Your task to perform on an android device: Search for pizza restaurants on Maps Image 0: 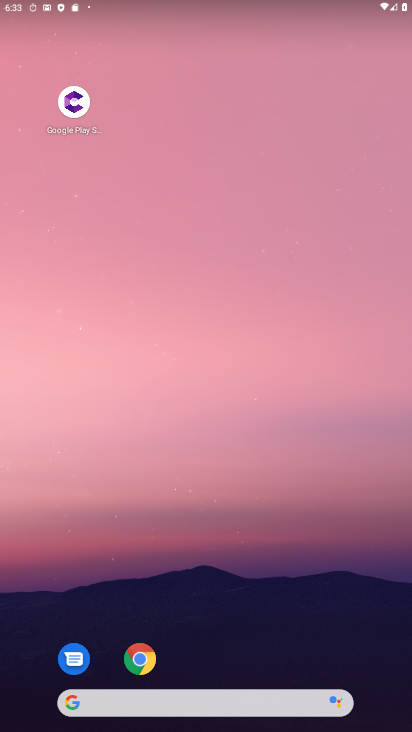
Step 0: drag from (368, 651) to (237, 28)
Your task to perform on an android device: Search for pizza restaurants on Maps Image 1: 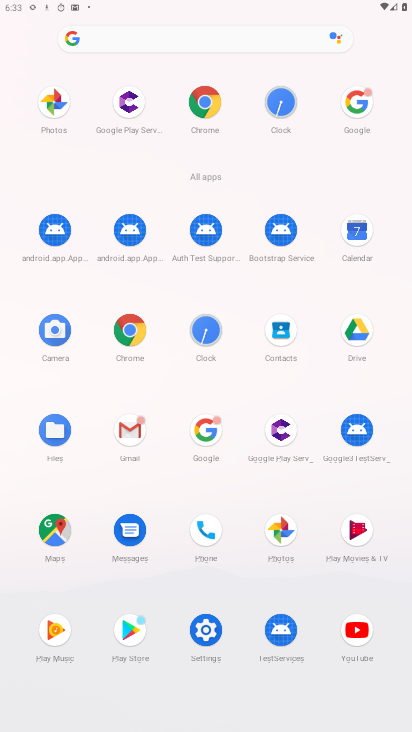
Step 1: click (44, 520)
Your task to perform on an android device: Search for pizza restaurants on Maps Image 2: 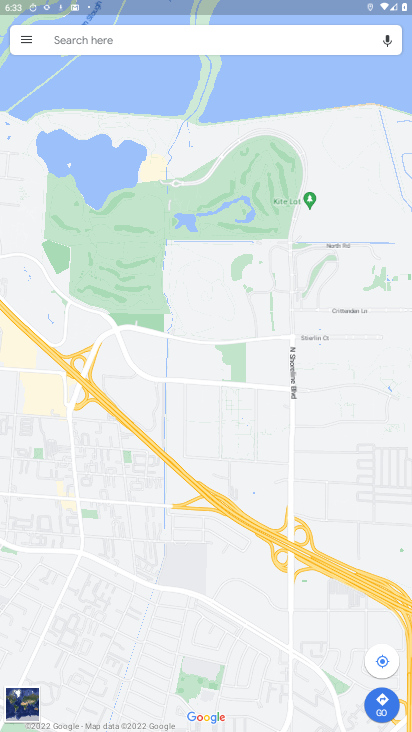
Step 2: click (109, 47)
Your task to perform on an android device: Search for pizza restaurants on Maps Image 3: 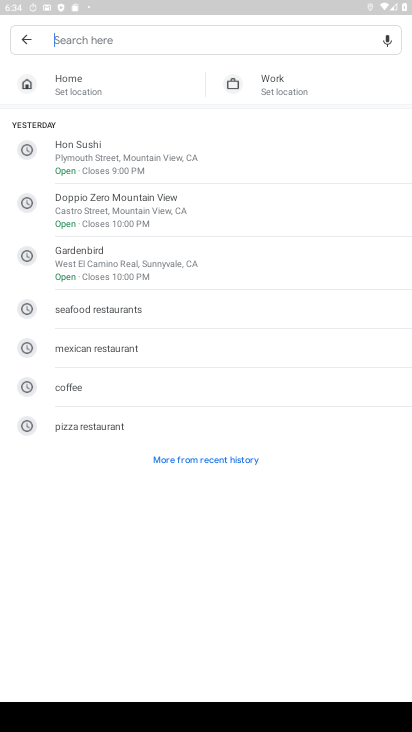
Step 3: click (91, 428)
Your task to perform on an android device: Search for pizza restaurants on Maps Image 4: 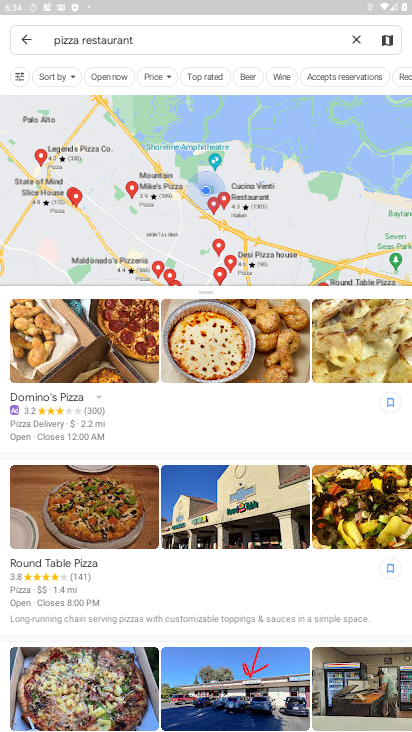
Step 4: task complete